Your task to perform on an android device: Open notification settings Image 0: 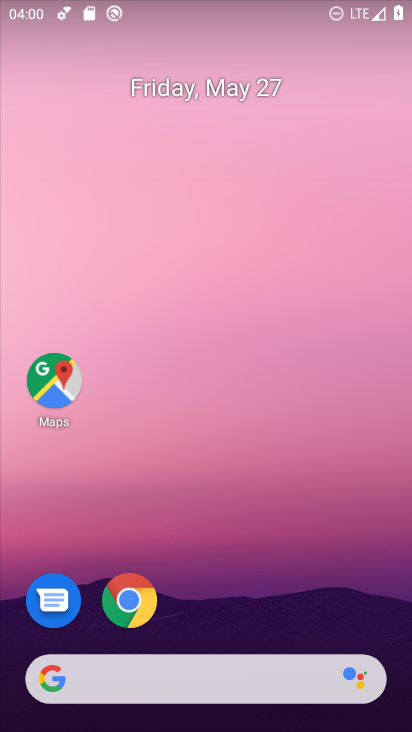
Step 0: press home button
Your task to perform on an android device: Open notification settings Image 1: 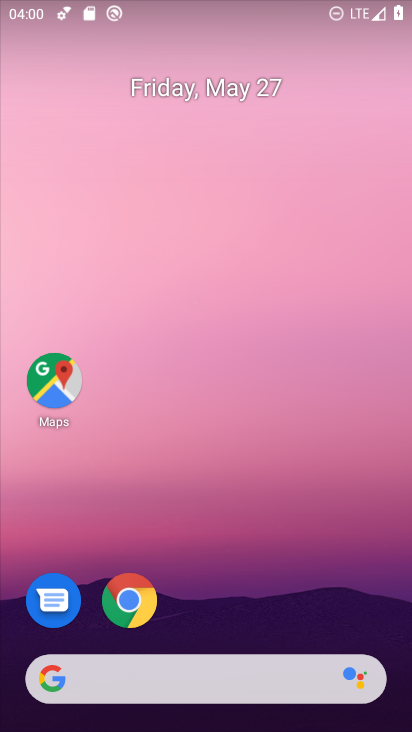
Step 1: drag from (201, 724) to (197, 142)
Your task to perform on an android device: Open notification settings Image 2: 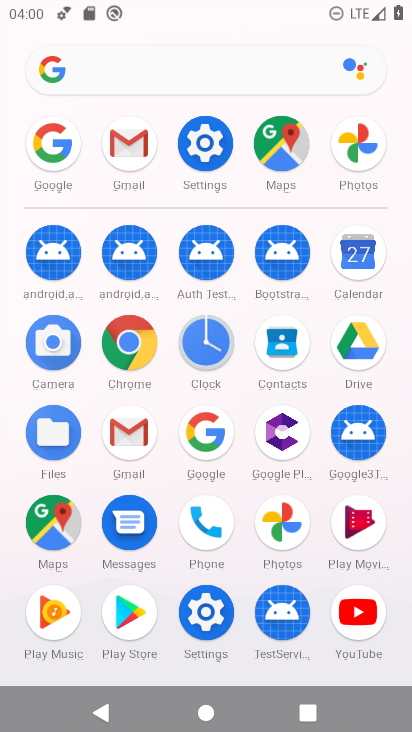
Step 2: click (211, 148)
Your task to perform on an android device: Open notification settings Image 3: 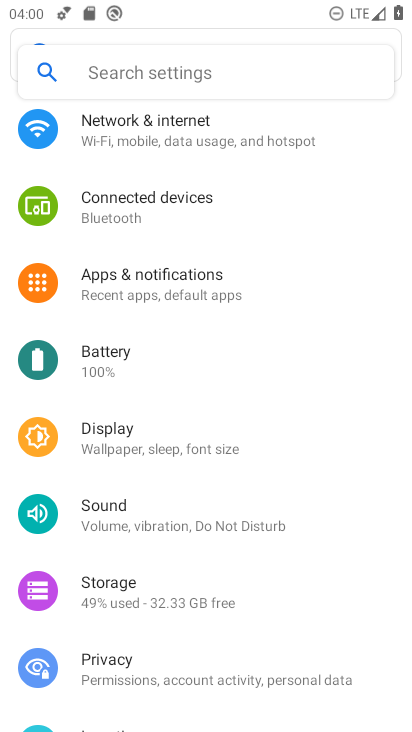
Step 3: click (159, 289)
Your task to perform on an android device: Open notification settings Image 4: 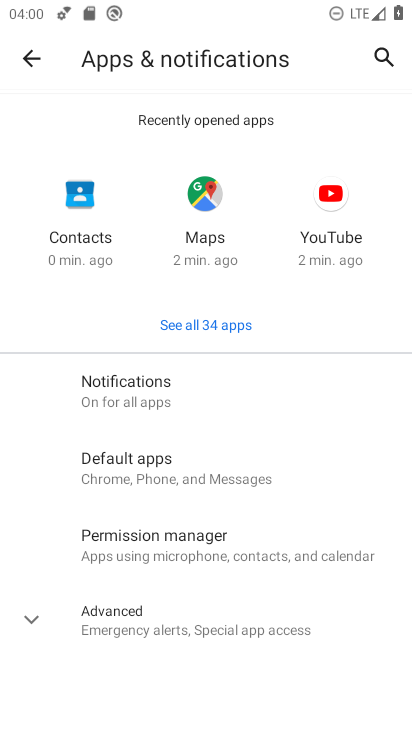
Step 4: click (124, 386)
Your task to perform on an android device: Open notification settings Image 5: 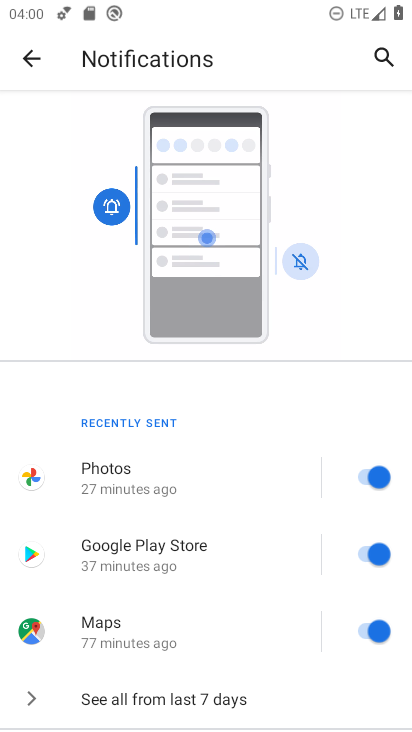
Step 5: task complete